Your task to perform on an android device: Set the phone to "Do not disturb". Image 0: 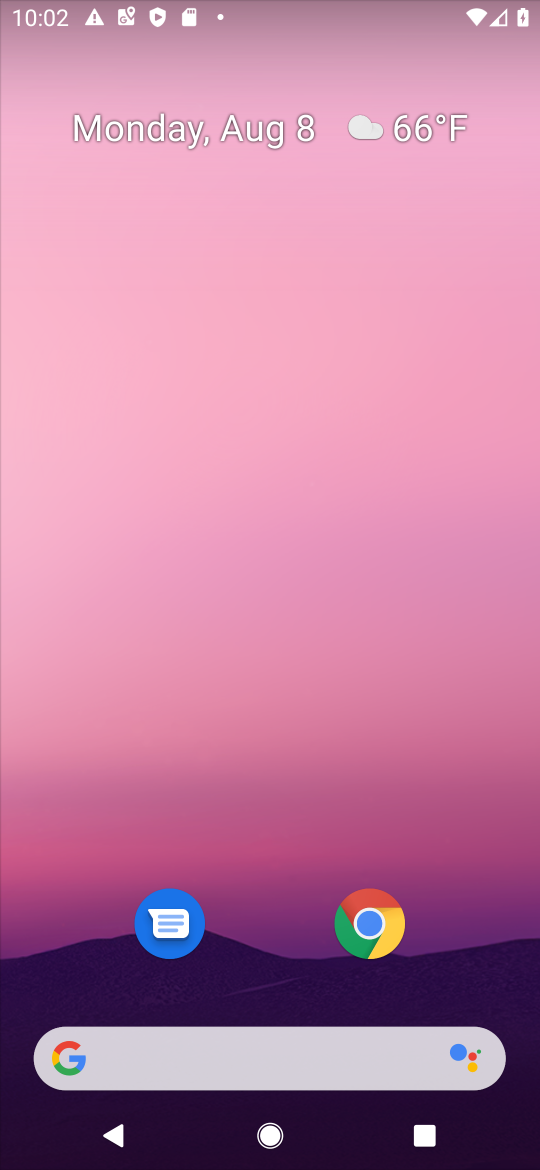
Step 0: drag from (50, 1139) to (323, 377)
Your task to perform on an android device: Set the phone to "Do not disturb". Image 1: 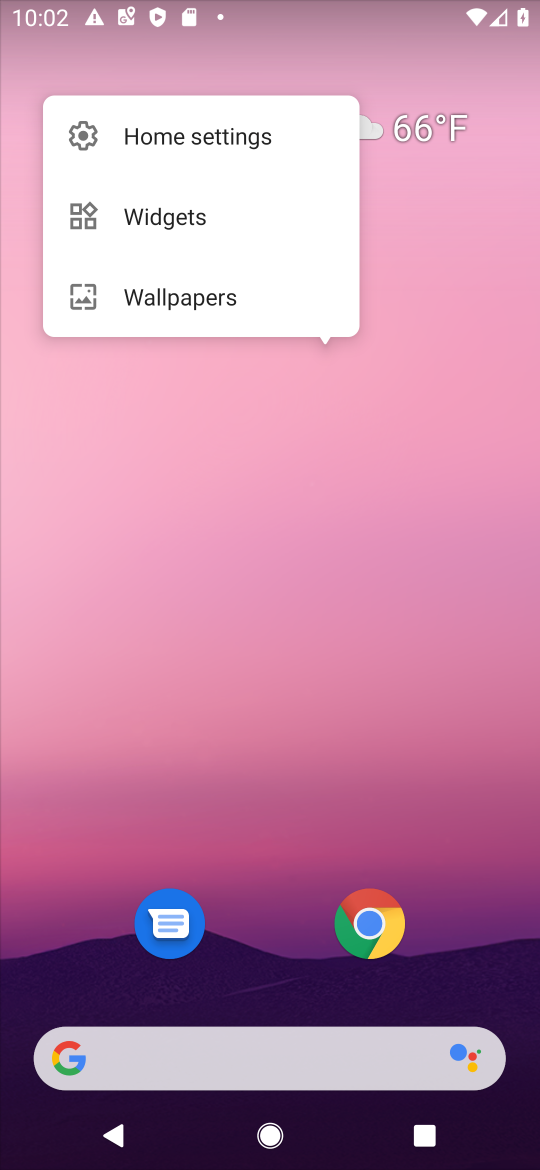
Step 1: click (41, 1094)
Your task to perform on an android device: Set the phone to "Do not disturb". Image 2: 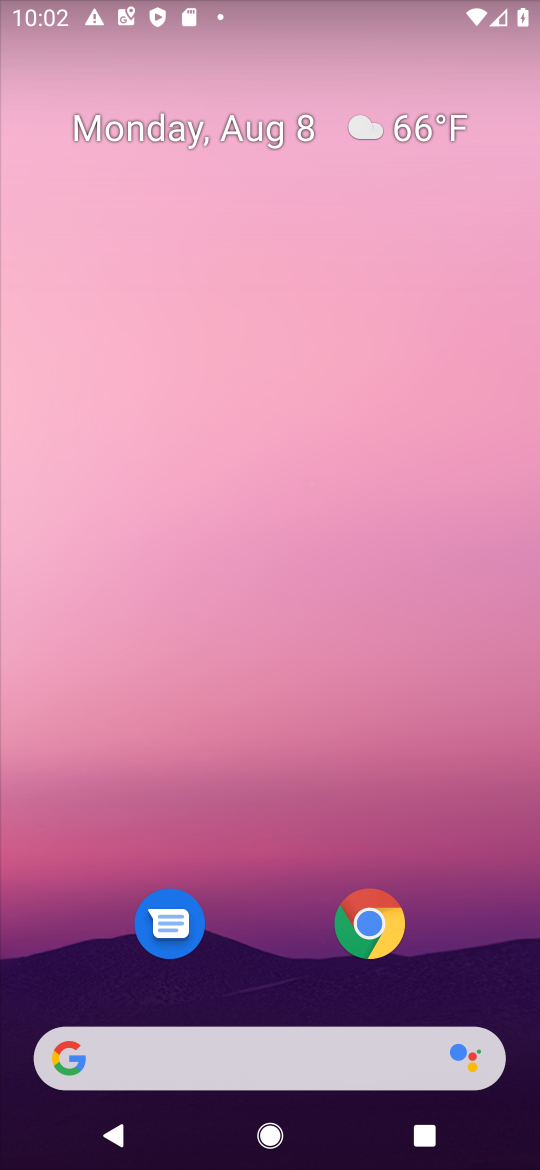
Step 2: task complete